Your task to perform on an android device: What's on my calendar tomorrow? Image 0: 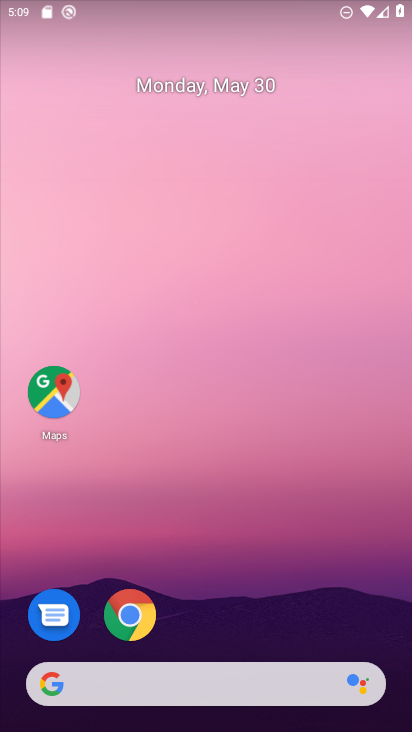
Step 0: click (202, 93)
Your task to perform on an android device: What's on my calendar tomorrow? Image 1: 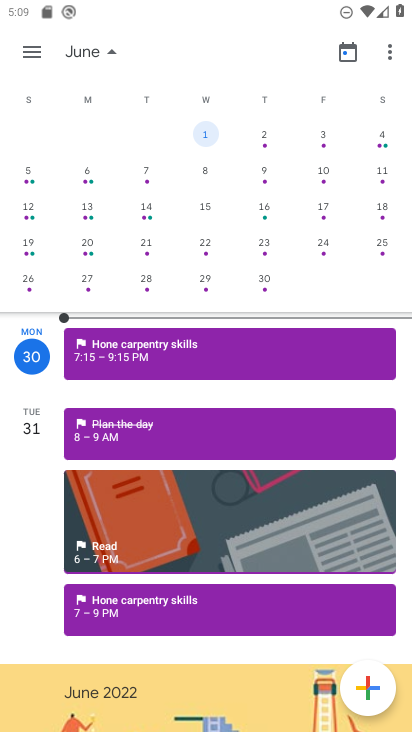
Step 1: click (213, 357)
Your task to perform on an android device: What's on my calendar tomorrow? Image 2: 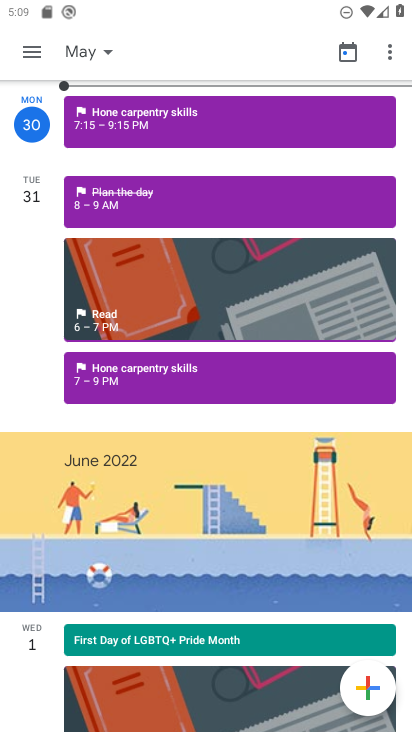
Step 2: click (184, 206)
Your task to perform on an android device: What's on my calendar tomorrow? Image 3: 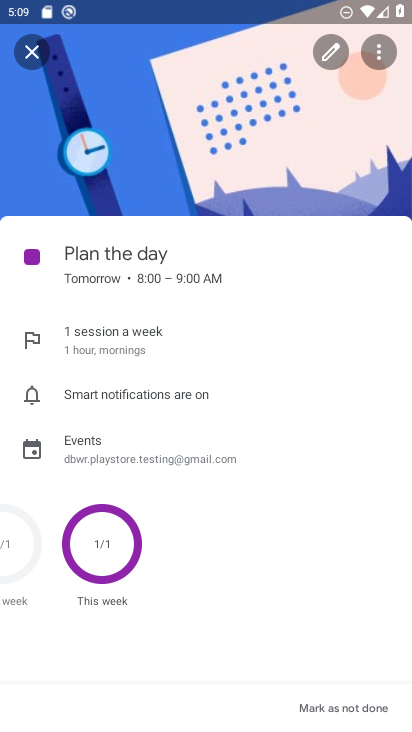
Step 3: task complete